Your task to perform on an android device: change alarm snooze length Image 0: 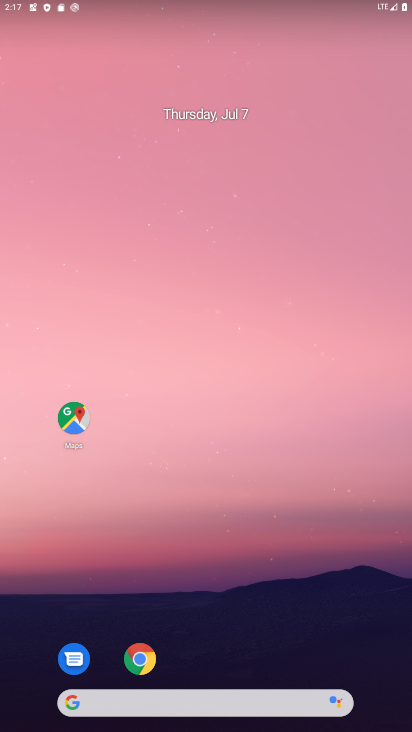
Step 0: drag from (212, 656) to (266, 152)
Your task to perform on an android device: change alarm snooze length Image 1: 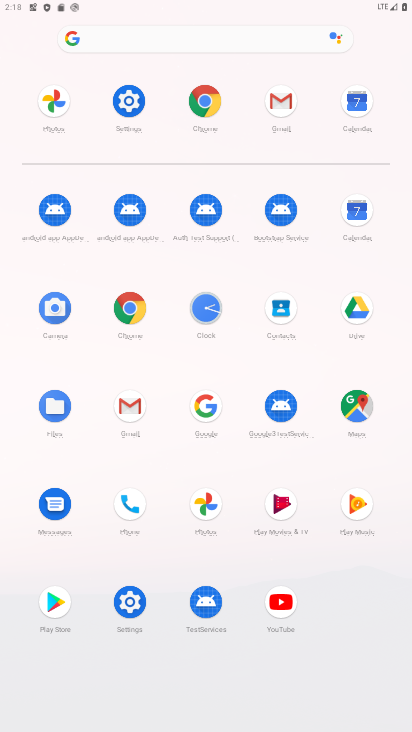
Step 1: click (206, 307)
Your task to perform on an android device: change alarm snooze length Image 2: 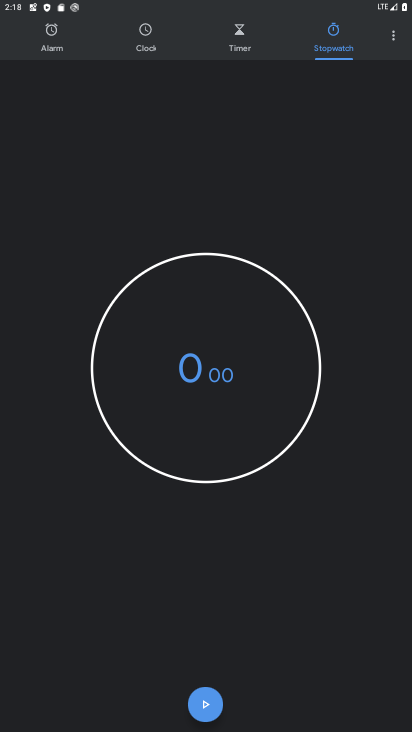
Step 2: click (397, 37)
Your task to perform on an android device: change alarm snooze length Image 3: 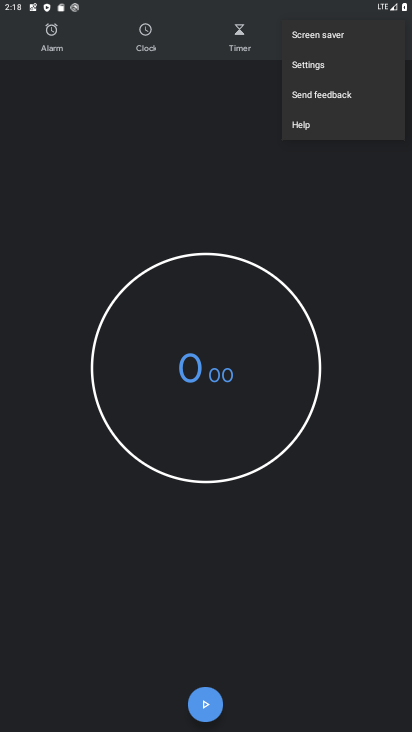
Step 3: click (315, 63)
Your task to perform on an android device: change alarm snooze length Image 4: 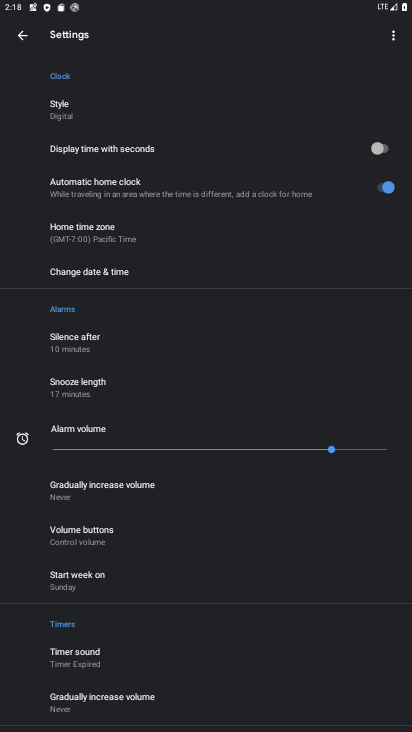
Step 4: click (89, 390)
Your task to perform on an android device: change alarm snooze length Image 5: 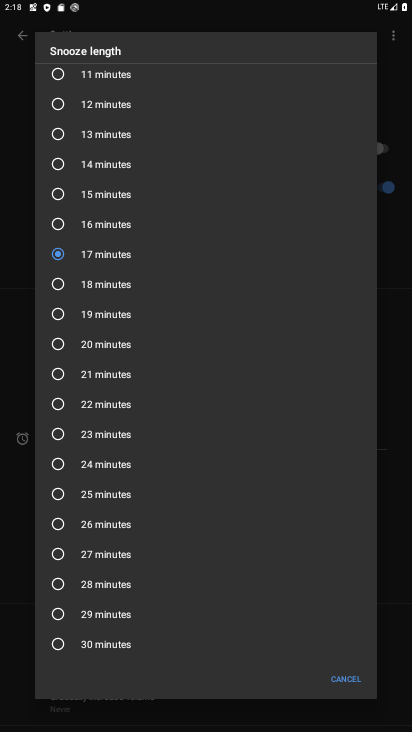
Step 5: click (57, 76)
Your task to perform on an android device: change alarm snooze length Image 6: 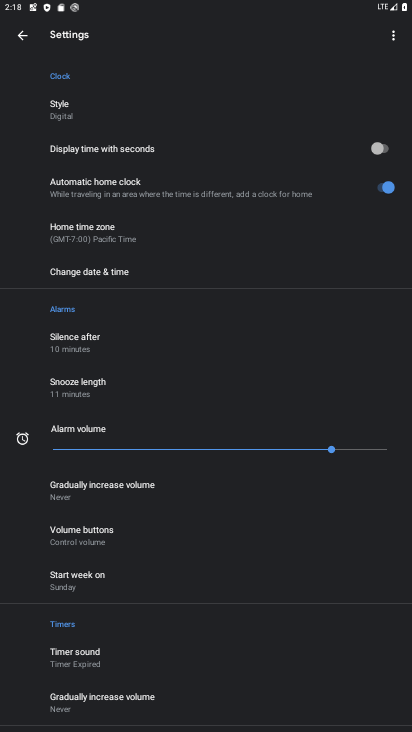
Step 6: task complete